Your task to perform on an android device: turn on improve location accuracy Image 0: 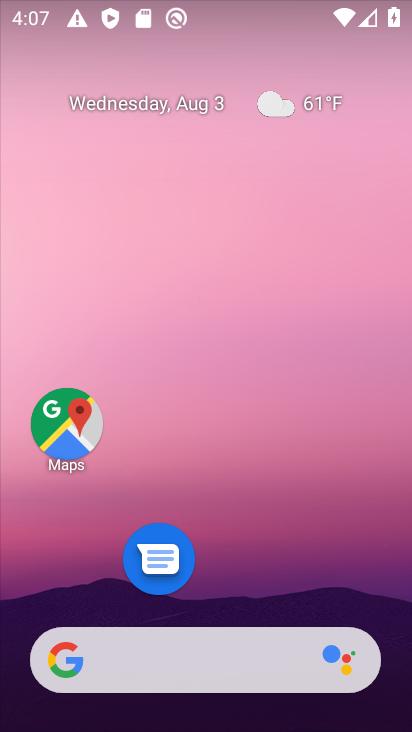
Step 0: drag from (204, 452) to (204, 157)
Your task to perform on an android device: turn on improve location accuracy Image 1: 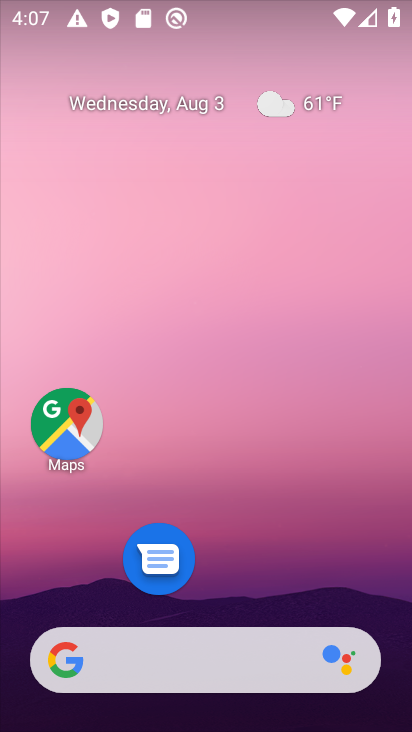
Step 1: drag from (214, 592) to (223, 196)
Your task to perform on an android device: turn on improve location accuracy Image 2: 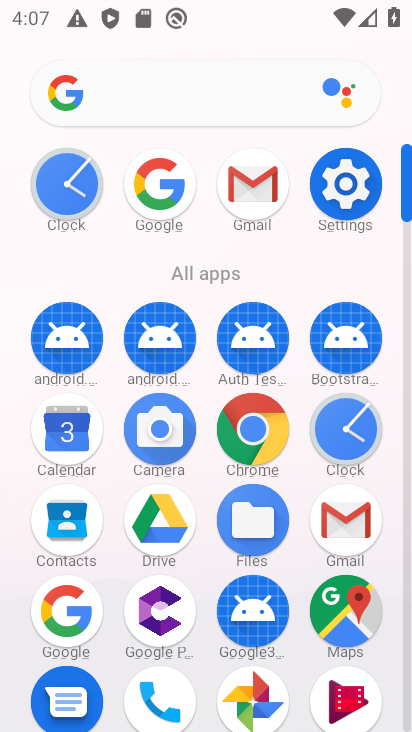
Step 2: click (341, 189)
Your task to perform on an android device: turn on improve location accuracy Image 3: 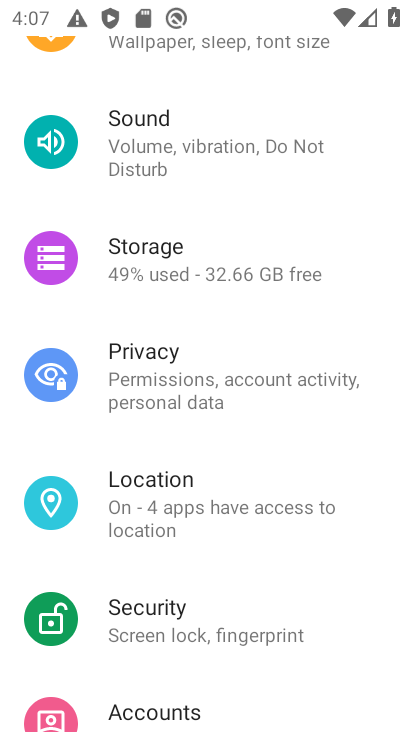
Step 3: drag from (146, 686) to (146, 297)
Your task to perform on an android device: turn on improve location accuracy Image 4: 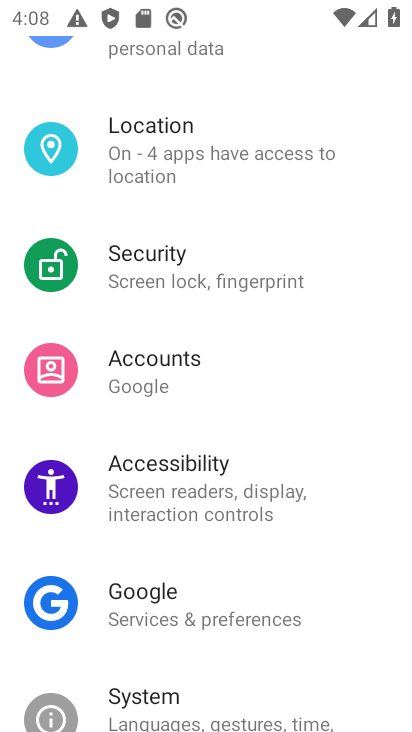
Step 4: drag from (179, 676) to (179, 329)
Your task to perform on an android device: turn on improve location accuracy Image 5: 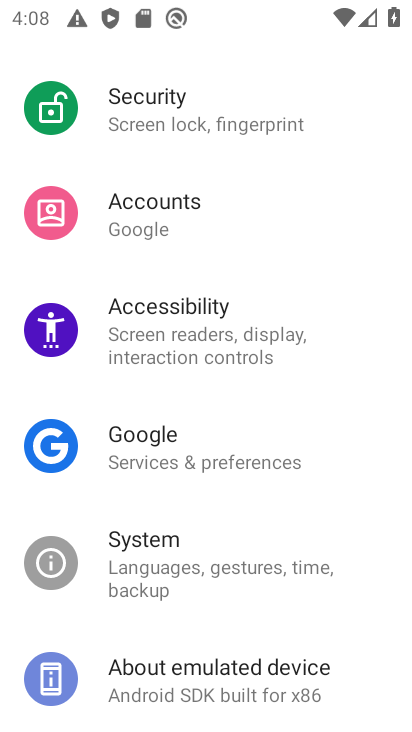
Step 5: drag from (149, 141) to (196, 538)
Your task to perform on an android device: turn on improve location accuracy Image 6: 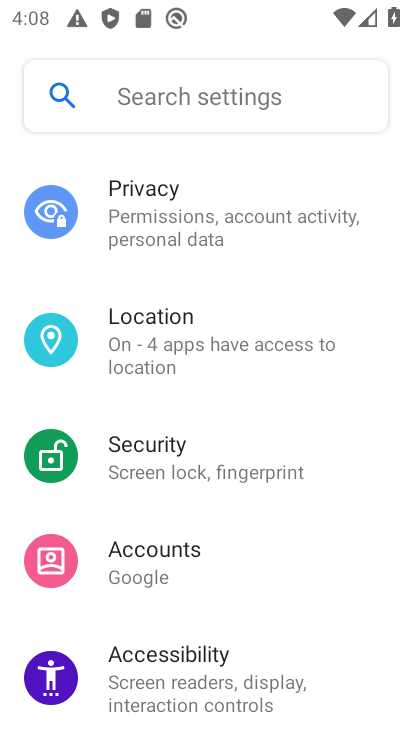
Step 6: click (142, 332)
Your task to perform on an android device: turn on improve location accuracy Image 7: 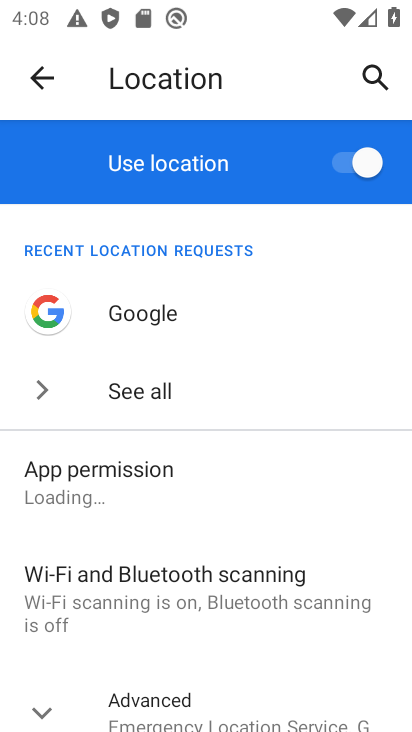
Step 7: drag from (122, 671) to (131, 289)
Your task to perform on an android device: turn on improve location accuracy Image 8: 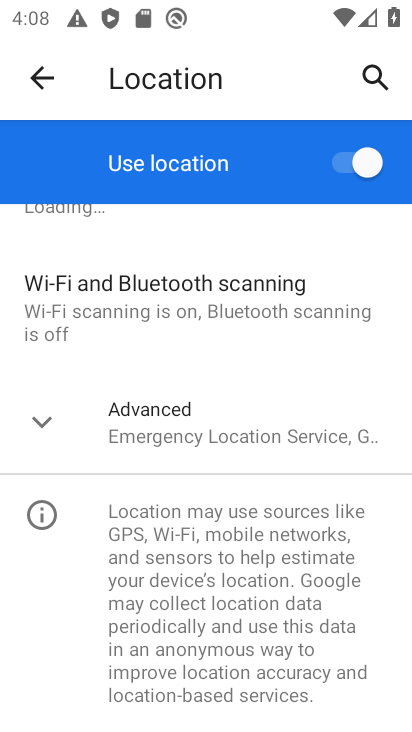
Step 8: click (149, 423)
Your task to perform on an android device: turn on improve location accuracy Image 9: 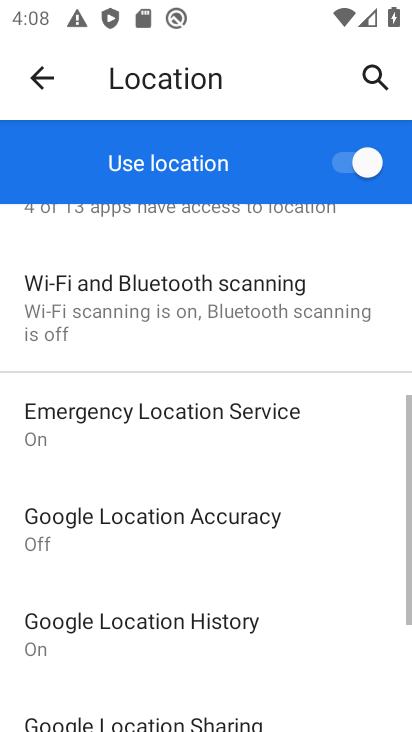
Step 9: drag from (182, 668) to (182, 287)
Your task to perform on an android device: turn on improve location accuracy Image 10: 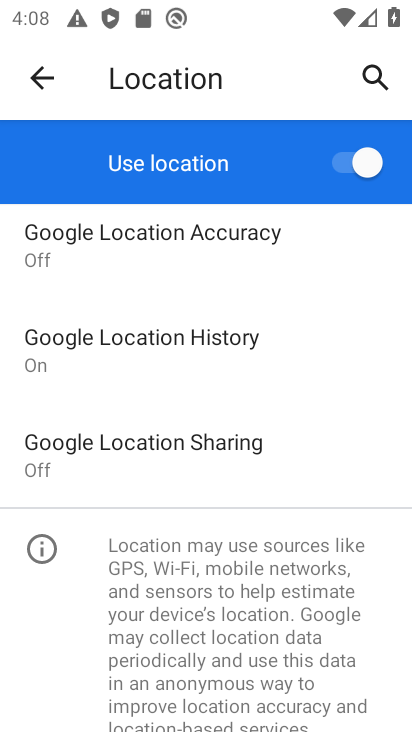
Step 10: click (104, 229)
Your task to perform on an android device: turn on improve location accuracy Image 11: 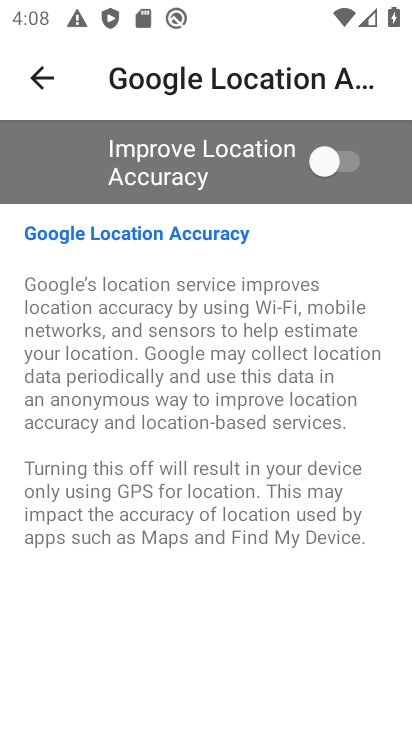
Step 11: click (336, 163)
Your task to perform on an android device: turn on improve location accuracy Image 12: 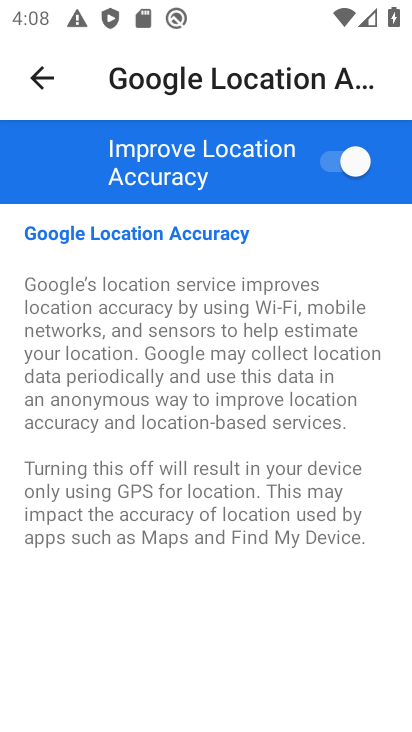
Step 12: task complete